Your task to perform on an android device: Search for Mexican restaurants on Maps Image 0: 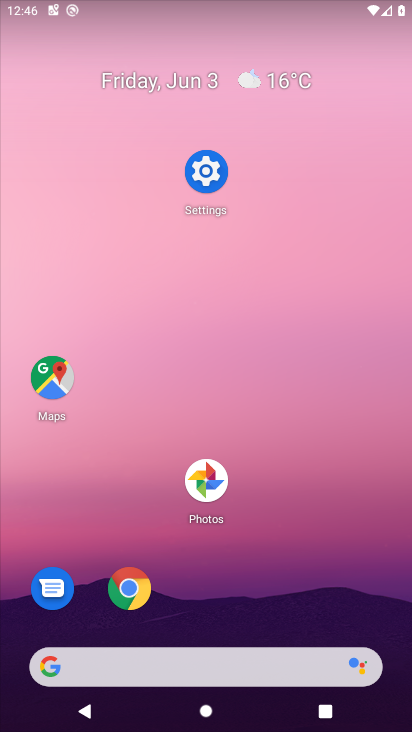
Step 0: drag from (184, 615) to (214, 112)
Your task to perform on an android device: Search for Mexican restaurants on Maps Image 1: 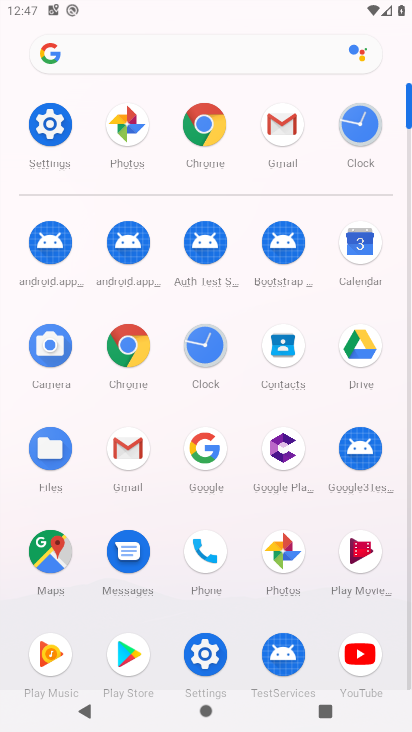
Step 1: click (49, 569)
Your task to perform on an android device: Search for Mexican restaurants on Maps Image 2: 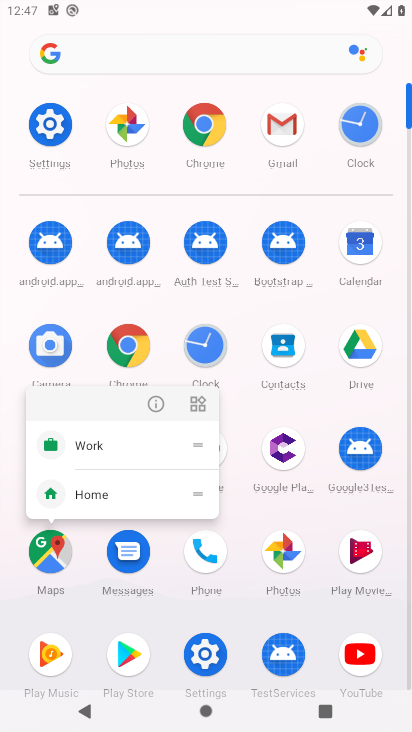
Step 2: click (151, 403)
Your task to perform on an android device: Search for Mexican restaurants on Maps Image 3: 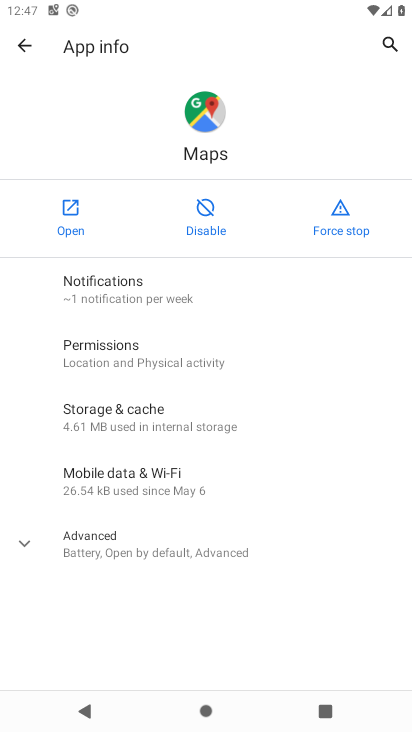
Step 3: click (57, 221)
Your task to perform on an android device: Search for Mexican restaurants on Maps Image 4: 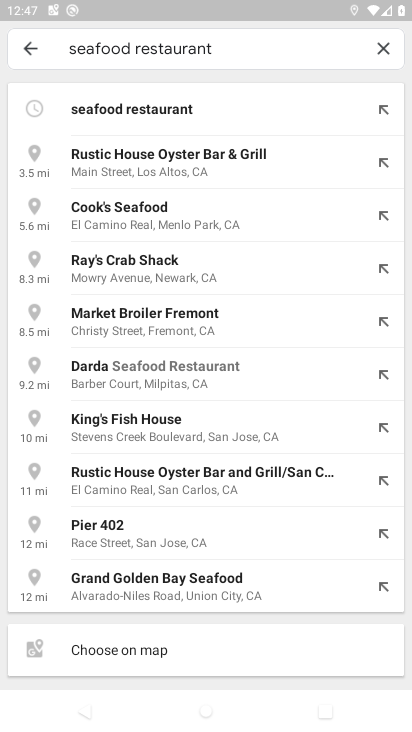
Step 4: click (391, 43)
Your task to perform on an android device: Search for Mexican restaurants on Maps Image 5: 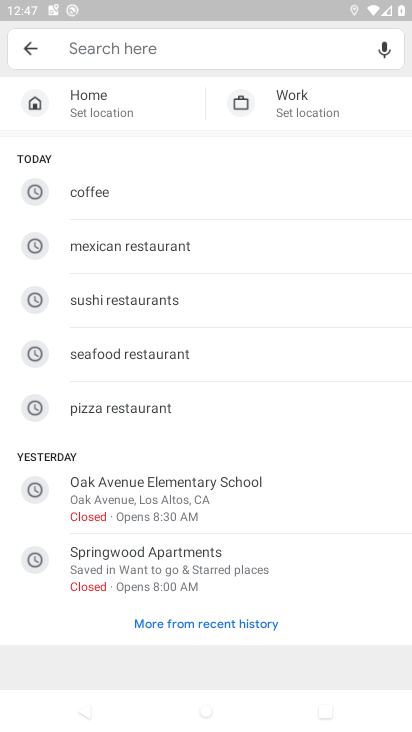
Step 5: click (148, 55)
Your task to perform on an android device: Search for Mexican restaurants on Maps Image 6: 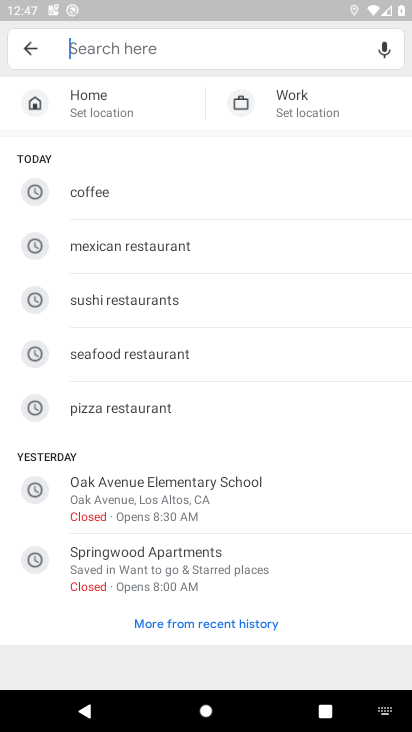
Step 6: click (110, 248)
Your task to perform on an android device: Search for Mexican restaurants on Maps Image 7: 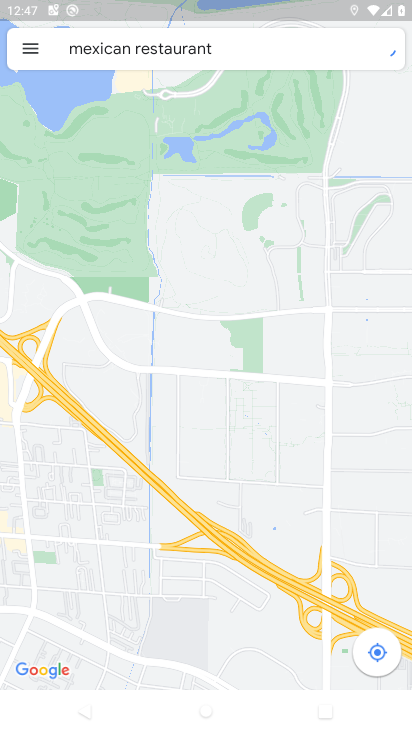
Step 7: task complete